Your task to perform on an android device: Toggle the flashlight Image 0: 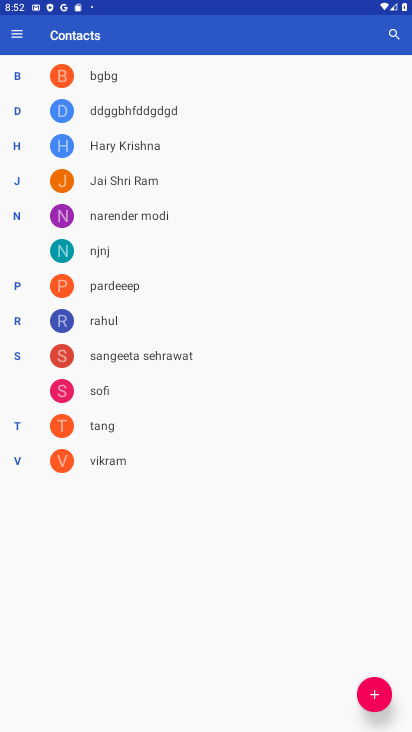
Step 0: press home button
Your task to perform on an android device: Toggle the flashlight Image 1: 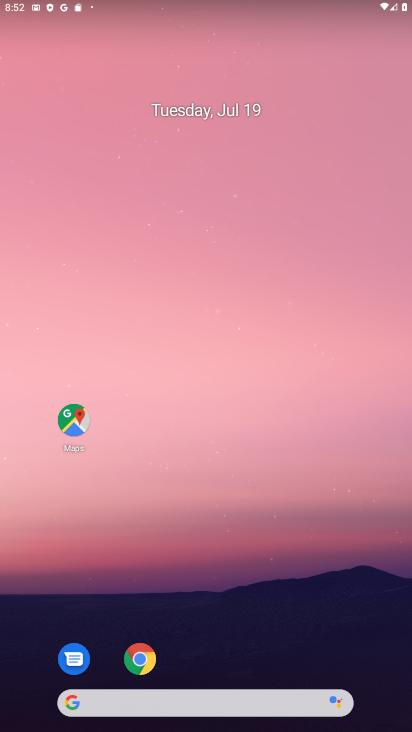
Step 1: drag from (216, 603) to (162, 4)
Your task to perform on an android device: Toggle the flashlight Image 2: 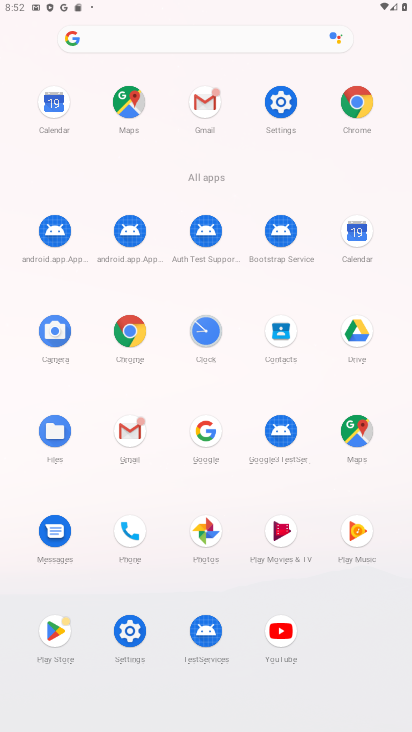
Step 2: click (125, 630)
Your task to perform on an android device: Toggle the flashlight Image 3: 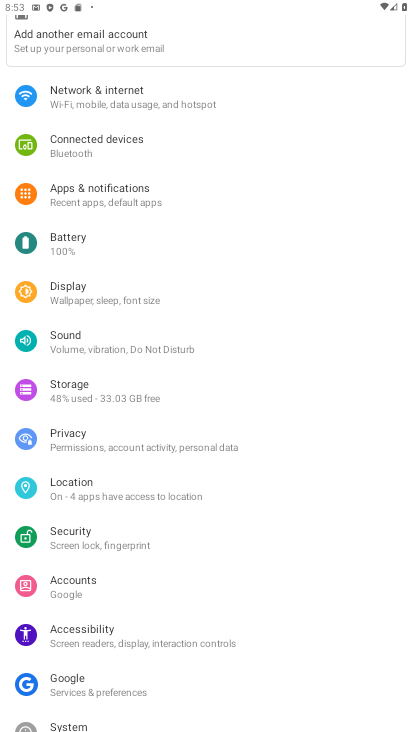
Step 3: task complete